Your task to perform on an android device: turn off picture-in-picture Image 0: 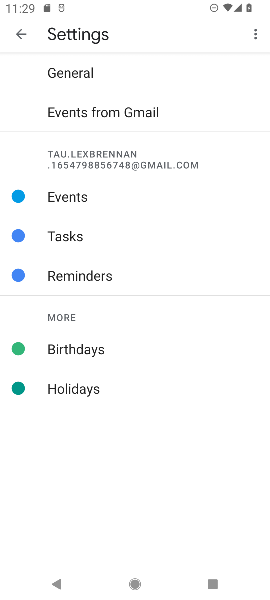
Step 0: press back button
Your task to perform on an android device: turn off picture-in-picture Image 1: 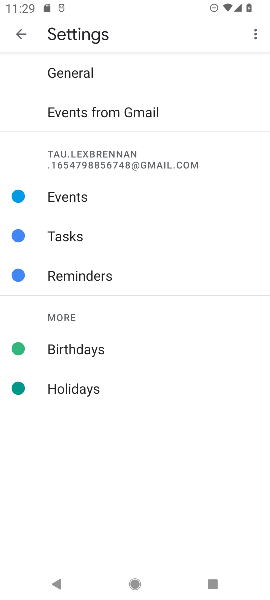
Step 1: press back button
Your task to perform on an android device: turn off picture-in-picture Image 2: 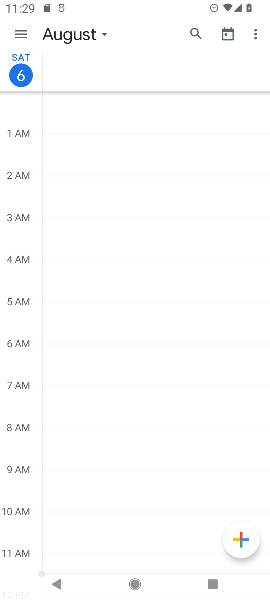
Step 2: press back button
Your task to perform on an android device: turn off picture-in-picture Image 3: 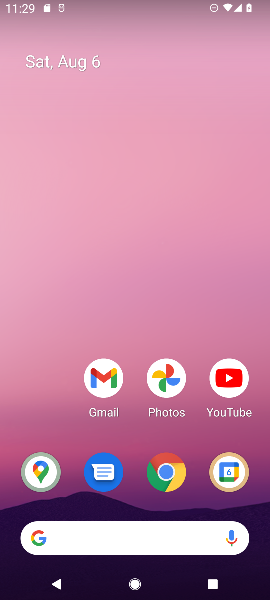
Step 3: drag from (132, 317) to (107, 124)
Your task to perform on an android device: turn off picture-in-picture Image 4: 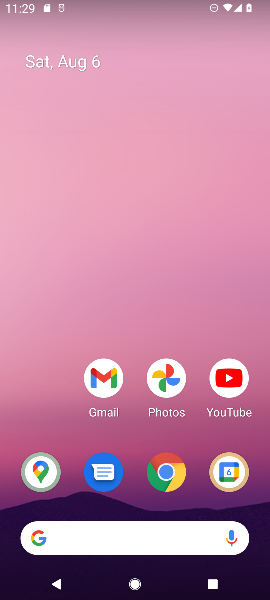
Step 4: drag from (112, 332) to (105, 84)
Your task to perform on an android device: turn off picture-in-picture Image 5: 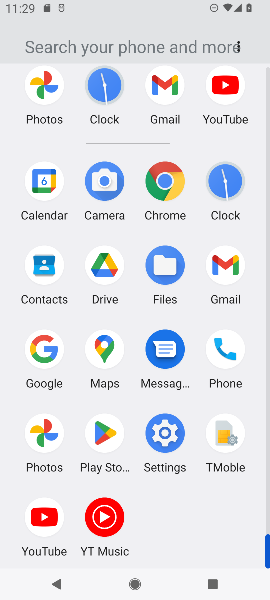
Step 5: click (156, 188)
Your task to perform on an android device: turn off picture-in-picture Image 6: 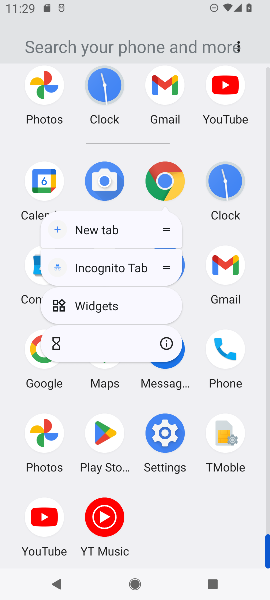
Step 6: click (162, 339)
Your task to perform on an android device: turn off picture-in-picture Image 7: 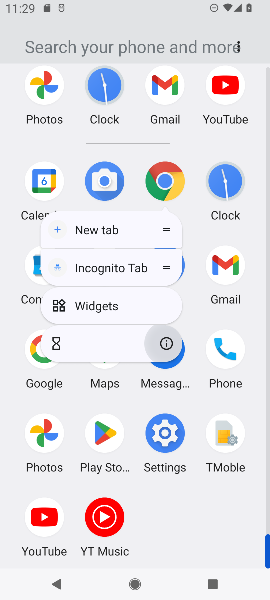
Step 7: click (165, 338)
Your task to perform on an android device: turn off picture-in-picture Image 8: 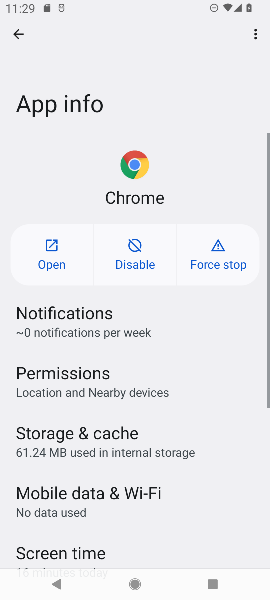
Step 8: drag from (93, 454) to (71, 304)
Your task to perform on an android device: turn off picture-in-picture Image 9: 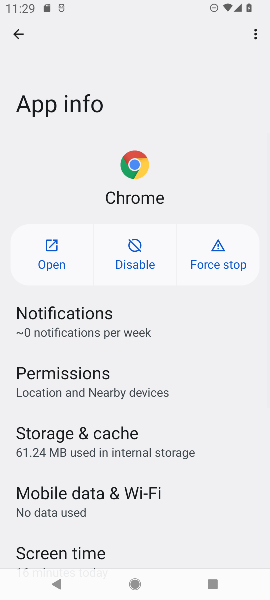
Step 9: drag from (115, 519) to (88, 254)
Your task to perform on an android device: turn off picture-in-picture Image 10: 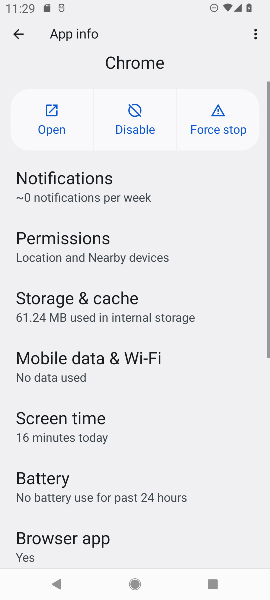
Step 10: drag from (108, 505) to (95, 253)
Your task to perform on an android device: turn off picture-in-picture Image 11: 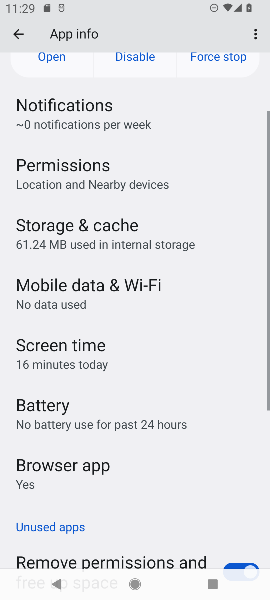
Step 11: drag from (98, 530) to (103, 261)
Your task to perform on an android device: turn off picture-in-picture Image 12: 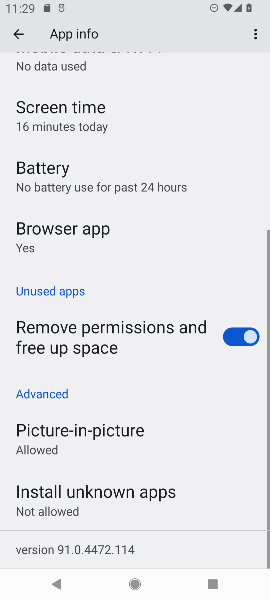
Step 12: drag from (157, 450) to (123, 171)
Your task to perform on an android device: turn off picture-in-picture Image 13: 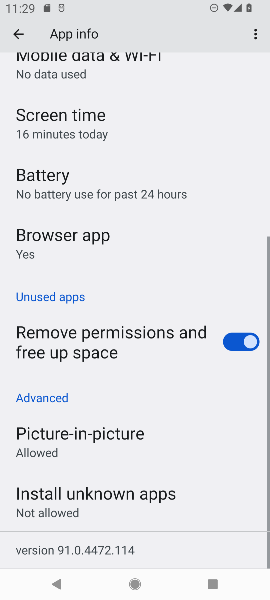
Step 13: drag from (144, 392) to (114, 187)
Your task to perform on an android device: turn off picture-in-picture Image 14: 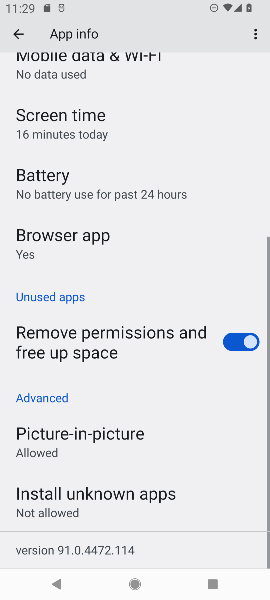
Step 14: click (88, 421)
Your task to perform on an android device: turn off picture-in-picture Image 15: 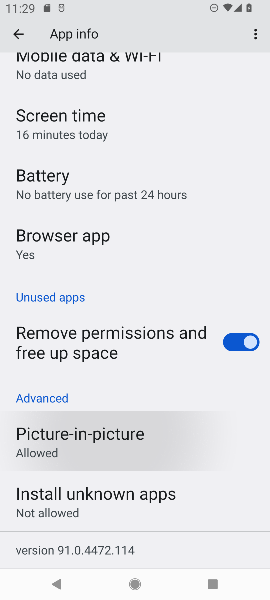
Step 15: click (84, 429)
Your task to perform on an android device: turn off picture-in-picture Image 16: 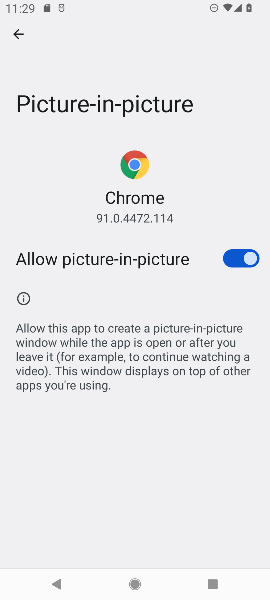
Step 16: click (237, 251)
Your task to perform on an android device: turn off picture-in-picture Image 17: 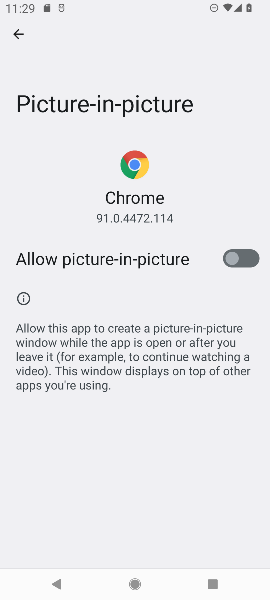
Step 17: task complete